Your task to perform on an android device: What's the weather today? Image 0: 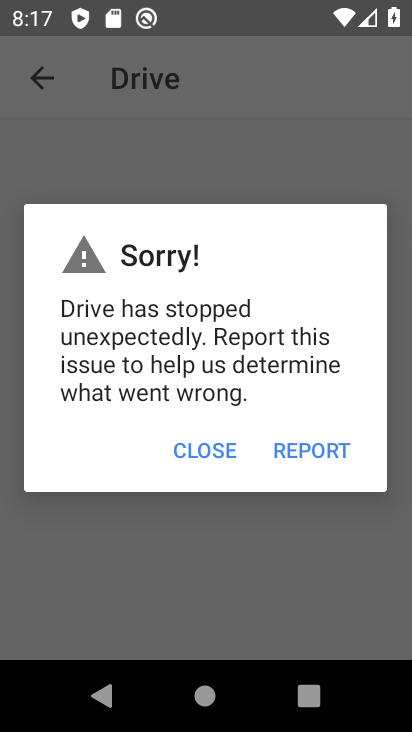
Step 0: press home button
Your task to perform on an android device: What's the weather today? Image 1: 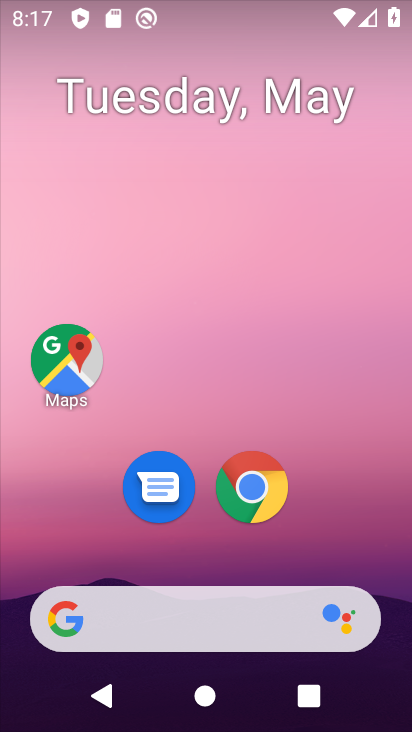
Step 1: drag from (259, 721) to (263, 241)
Your task to perform on an android device: What's the weather today? Image 2: 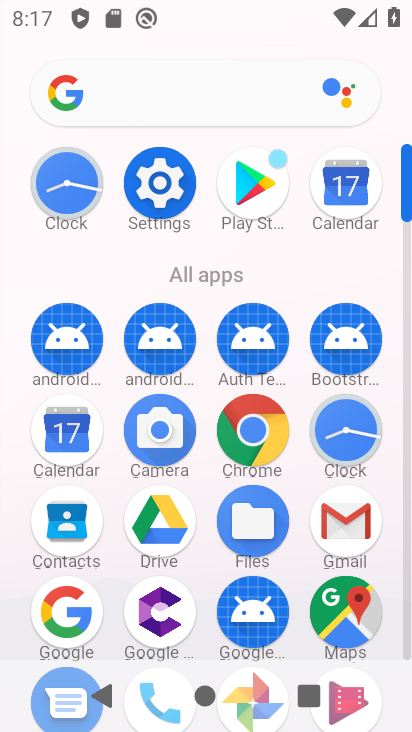
Step 2: click (53, 615)
Your task to perform on an android device: What's the weather today? Image 3: 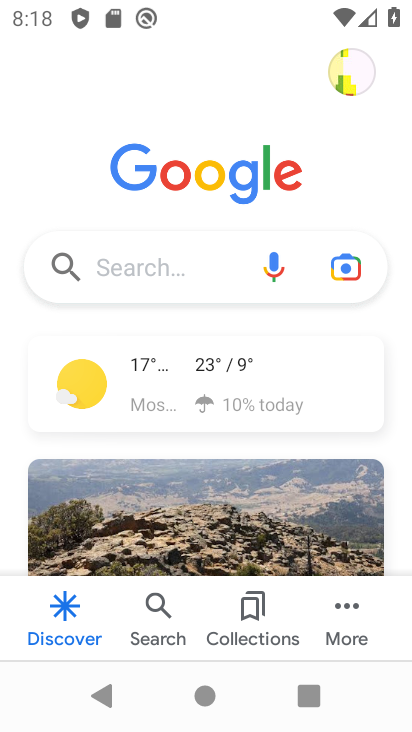
Step 3: click (202, 380)
Your task to perform on an android device: What's the weather today? Image 4: 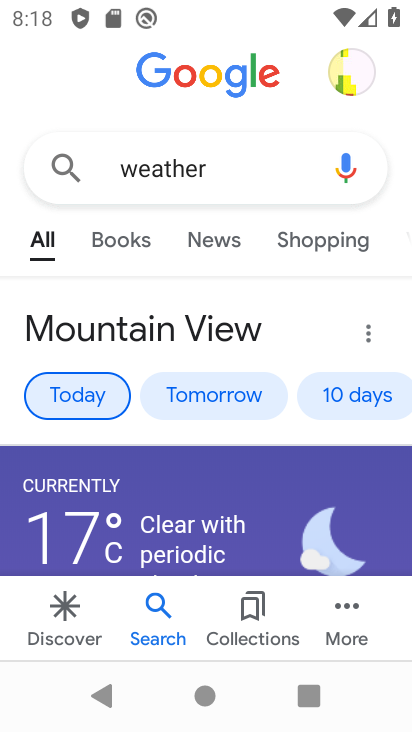
Step 4: task complete